Your task to perform on an android device: Show the shopping cart on newegg.com. Search for "jbl flip 4" on newegg.com, select the first entry, add it to the cart, then select checkout. Image 0: 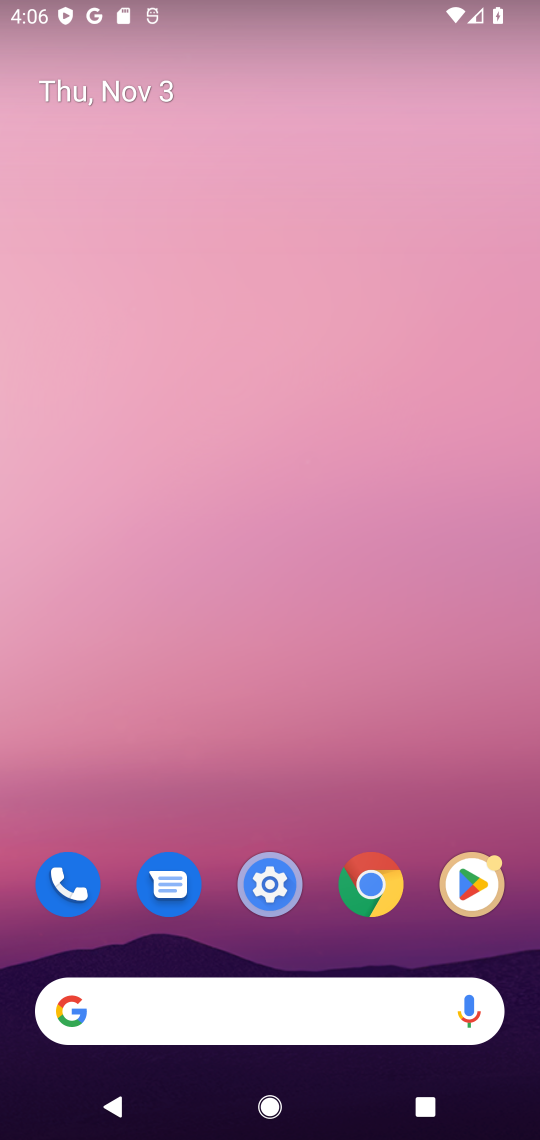
Step 0: press home button
Your task to perform on an android device: Show the shopping cart on newegg.com. Search for "jbl flip 4" on newegg.com, select the first entry, add it to the cart, then select checkout. Image 1: 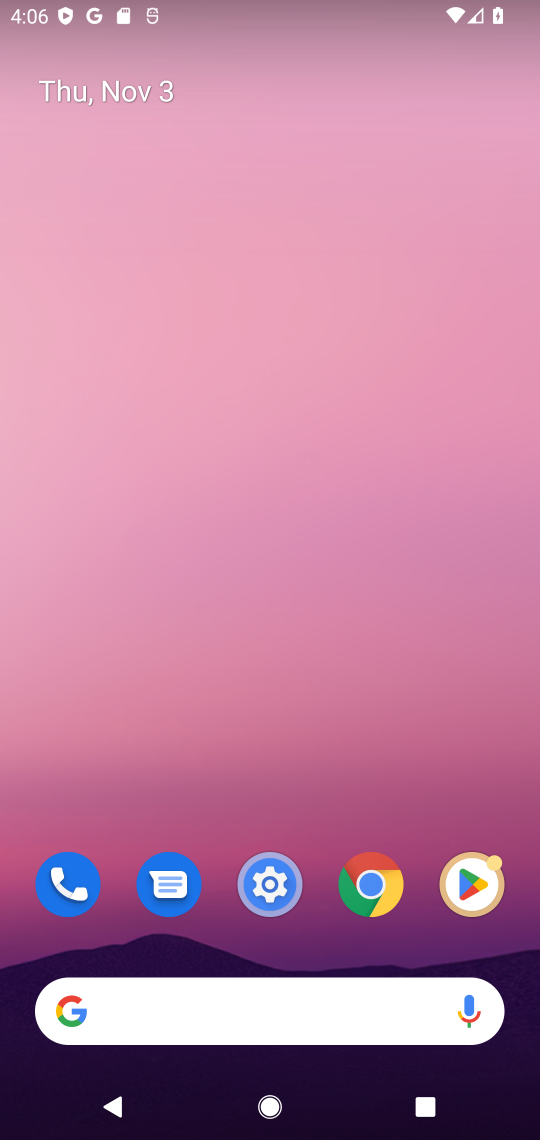
Step 1: press home button
Your task to perform on an android device: Show the shopping cart on newegg.com. Search for "jbl flip 4" on newegg.com, select the first entry, add it to the cart, then select checkout. Image 2: 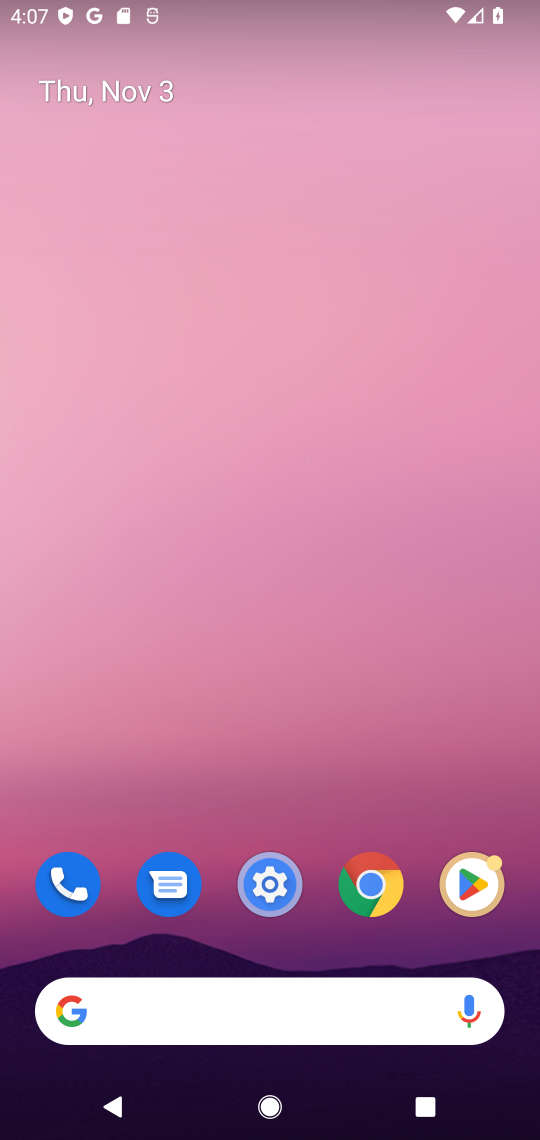
Step 2: click (123, 1006)
Your task to perform on an android device: Show the shopping cart on newegg.com. Search for "jbl flip 4" on newegg.com, select the first entry, add it to the cart, then select checkout. Image 3: 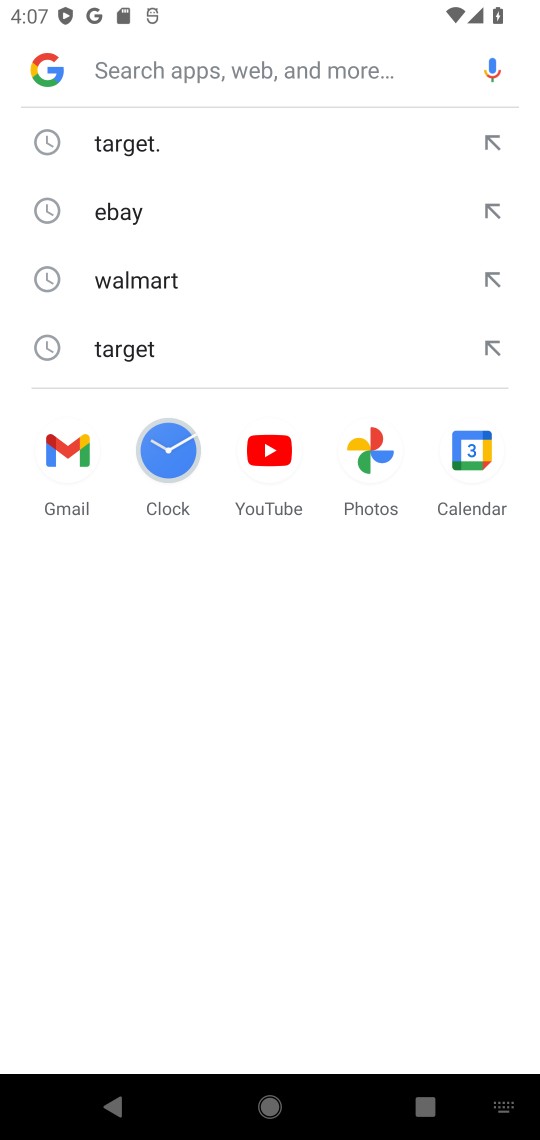
Step 3: type "newegg.com"
Your task to perform on an android device: Show the shopping cart on newegg.com. Search for "jbl flip 4" on newegg.com, select the first entry, add it to the cart, then select checkout. Image 4: 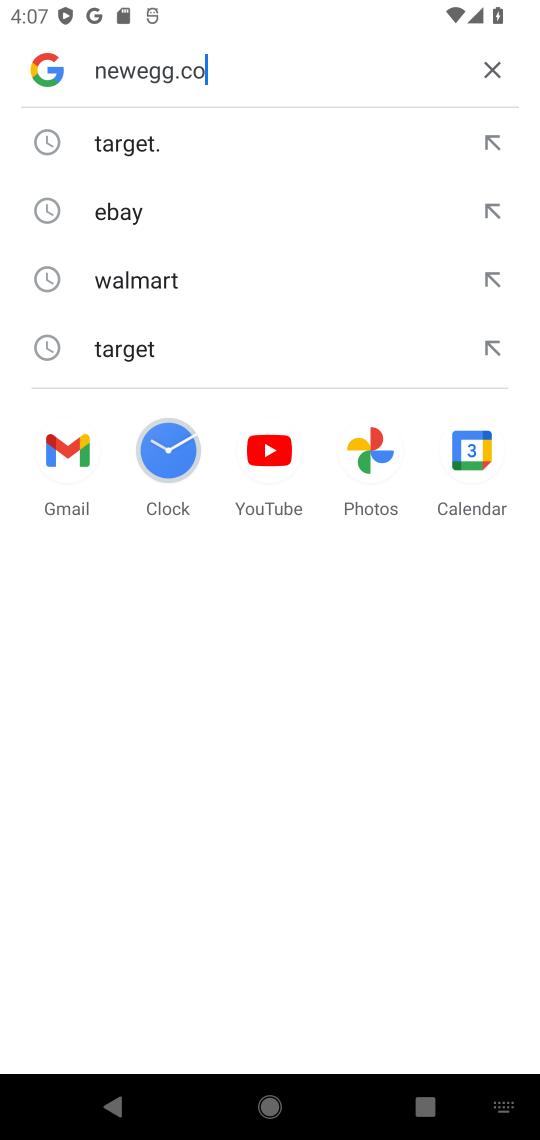
Step 4: press enter
Your task to perform on an android device: Show the shopping cart on newegg.com. Search for "jbl flip 4" on newegg.com, select the first entry, add it to the cart, then select checkout. Image 5: 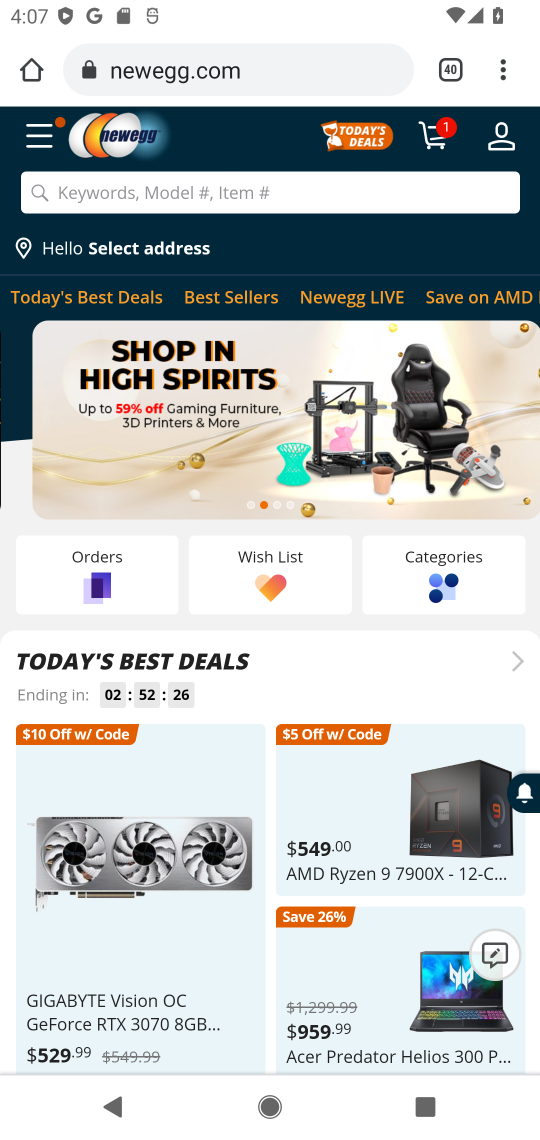
Step 5: click (440, 127)
Your task to perform on an android device: Show the shopping cart on newegg.com. Search for "jbl flip 4" on newegg.com, select the first entry, add it to the cart, then select checkout. Image 6: 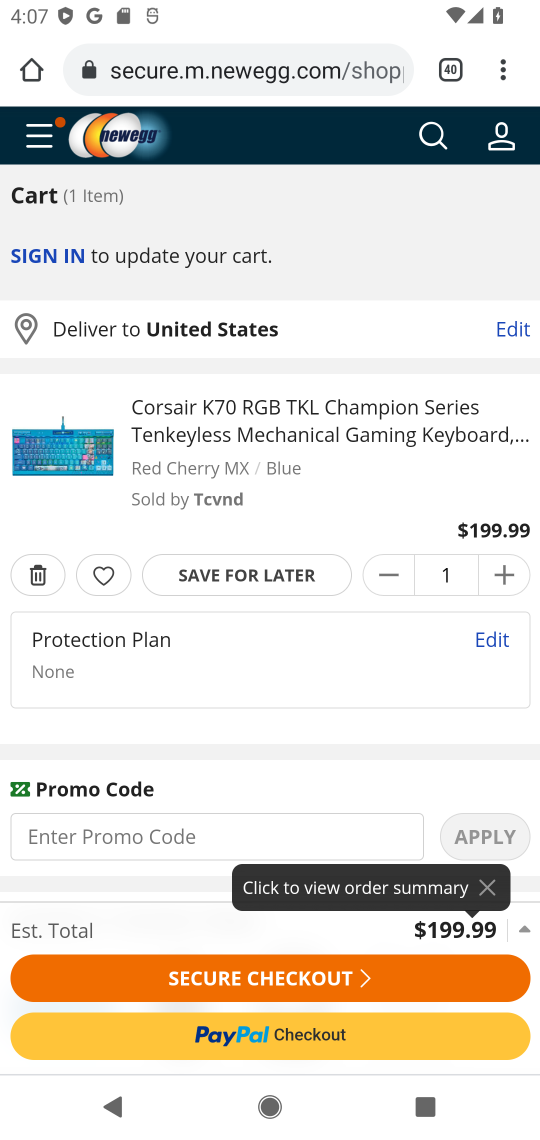
Step 6: click (434, 140)
Your task to perform on an android device: Show the shopping cart on newegg.com. Search for "jbl flip 4" on newegg.com, select the first entry, add it to the cart, then select checkout. Image 7: 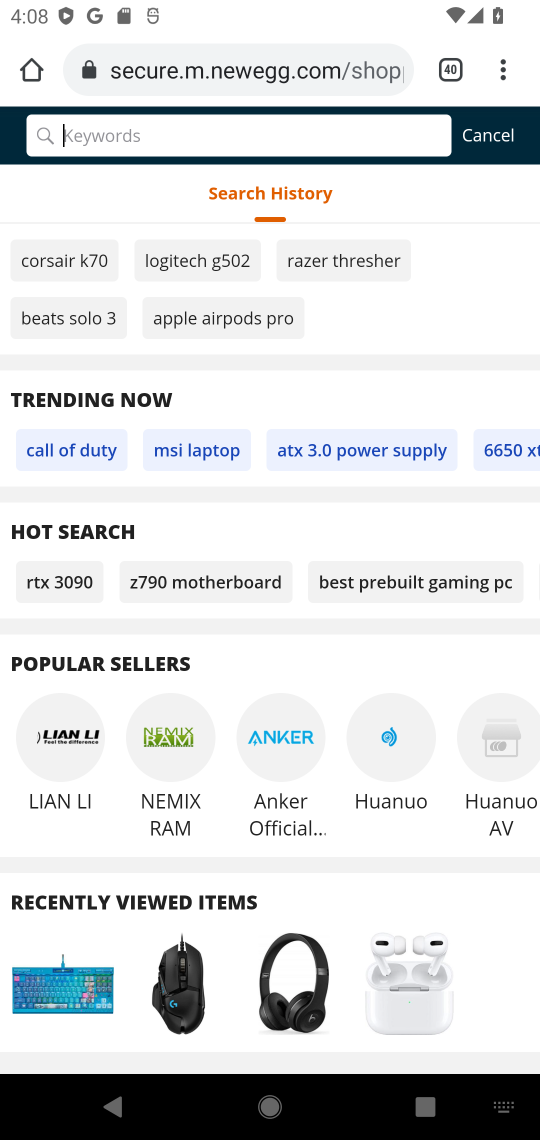
Step 7: type "jbl flip 4"
Your task to perform on an android device: Show the shopping cart on newegg.com. Search for "jbl flip 4" on newegg.com, select the first entry, add it to the cart, then select checkout. Image 8: 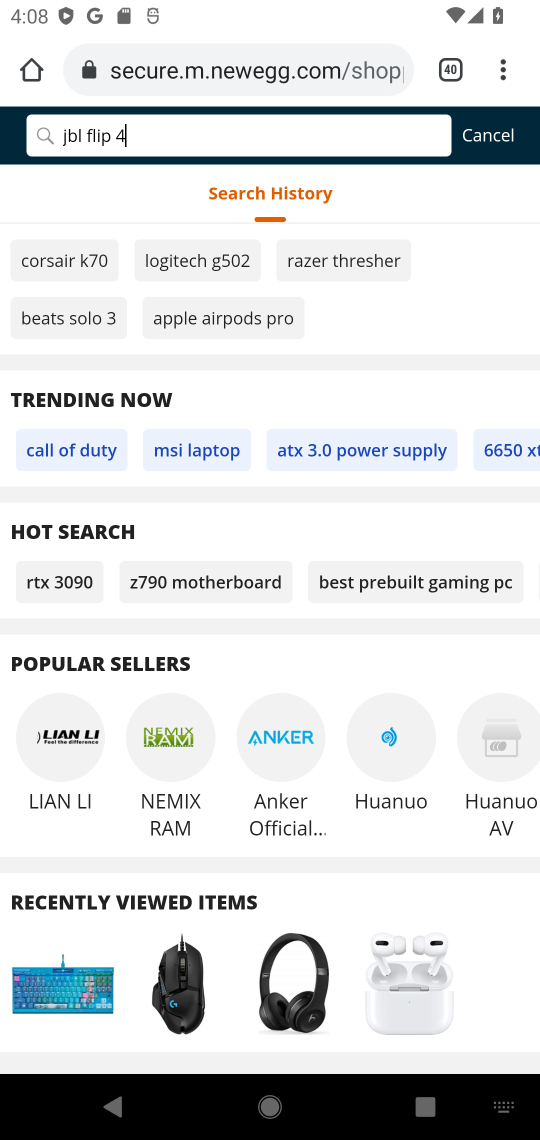
Step 8: press enter
Your task to perform on an android device: Show the shopping cart on newegg.com. Search for "jbl flip 4" on newegg.com, select the first entry, add it to the cart, then select checkout. Image 9: 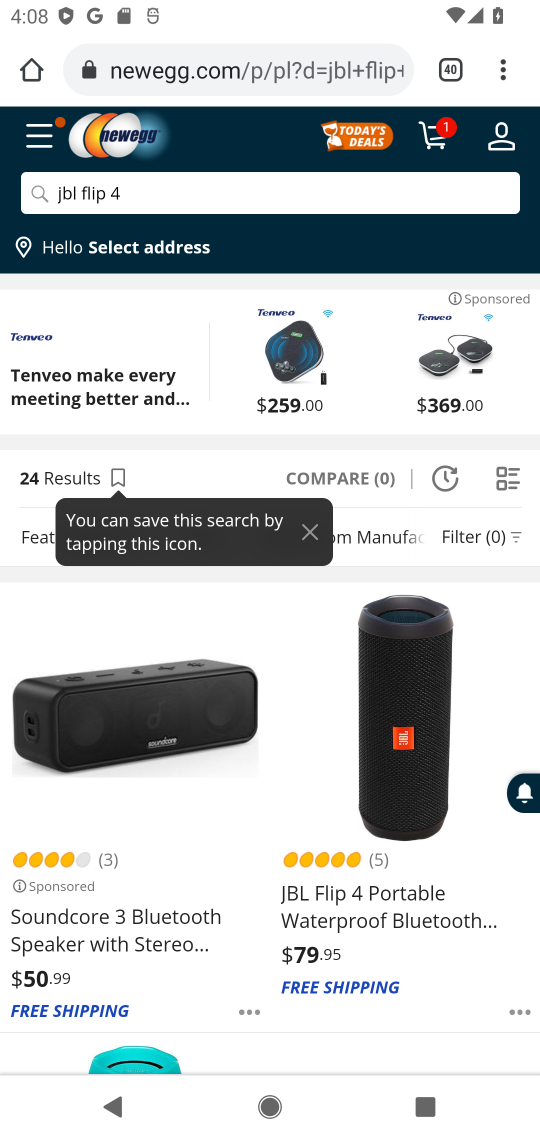
Step 9: click (366, 890)
Your task to perform on an android device: Show the shopping cart on newegg.com. Search for "jbl flip 4" on newegg.com, select the first entry, add it to the cart, then select checkout. Image 10: 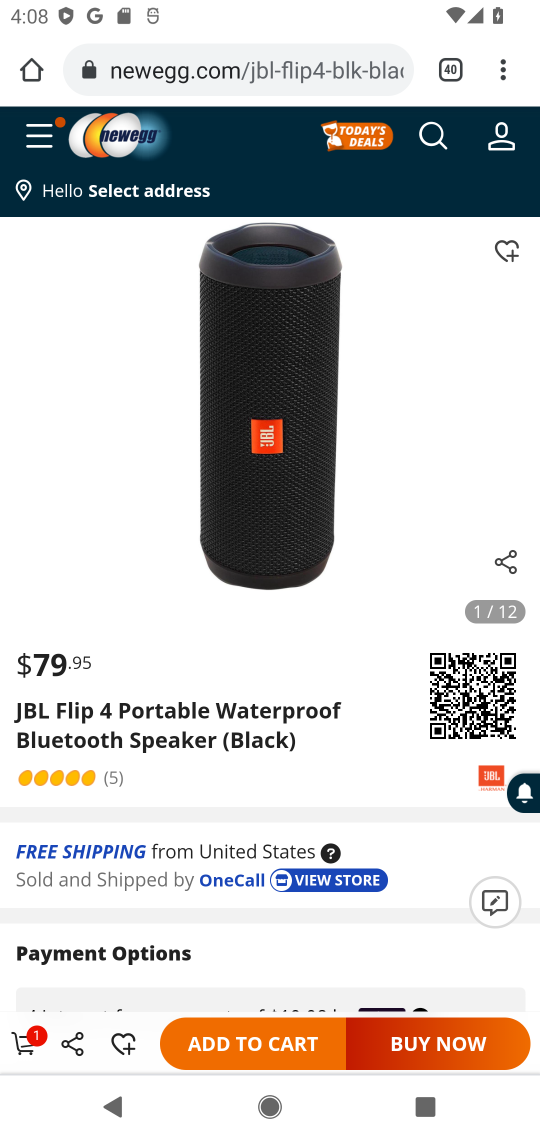
Step 10: click (235, 1045)
Your task to perform on an android device: Show the shopping cart on newegg.com. Search for "jbl flip 4" on newegg.com, select the first entry, add it to the cart, then select checkout. Image 11: 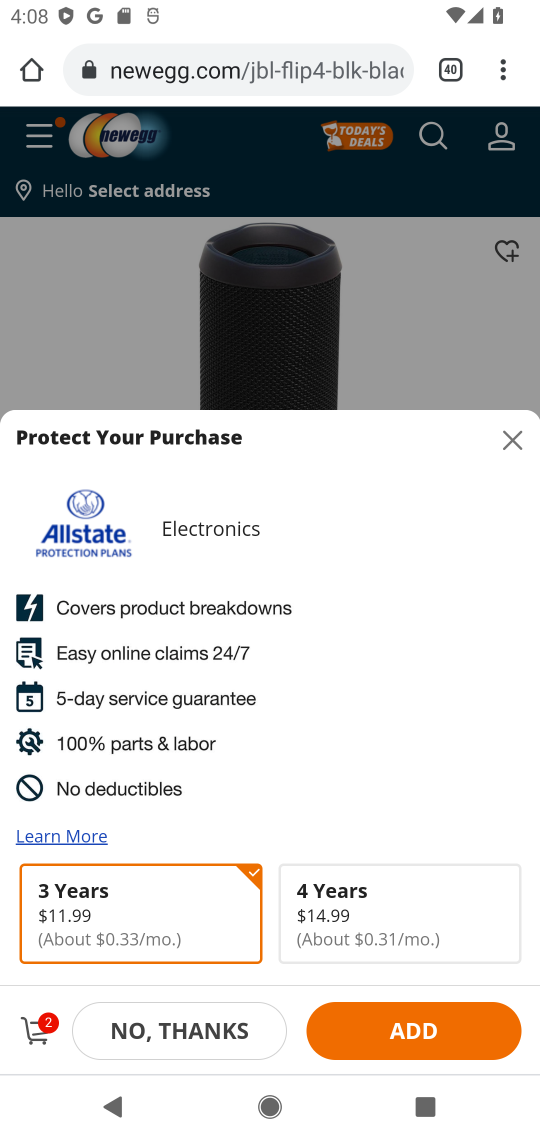
Step 11: click (175, 1024)
Your task to perform on an android device: Show the shopping cart on newegg.com. Search for "jbl flip 4" on newegg.com, select the first entry, add it to the cart, then select checkout. Image 12: 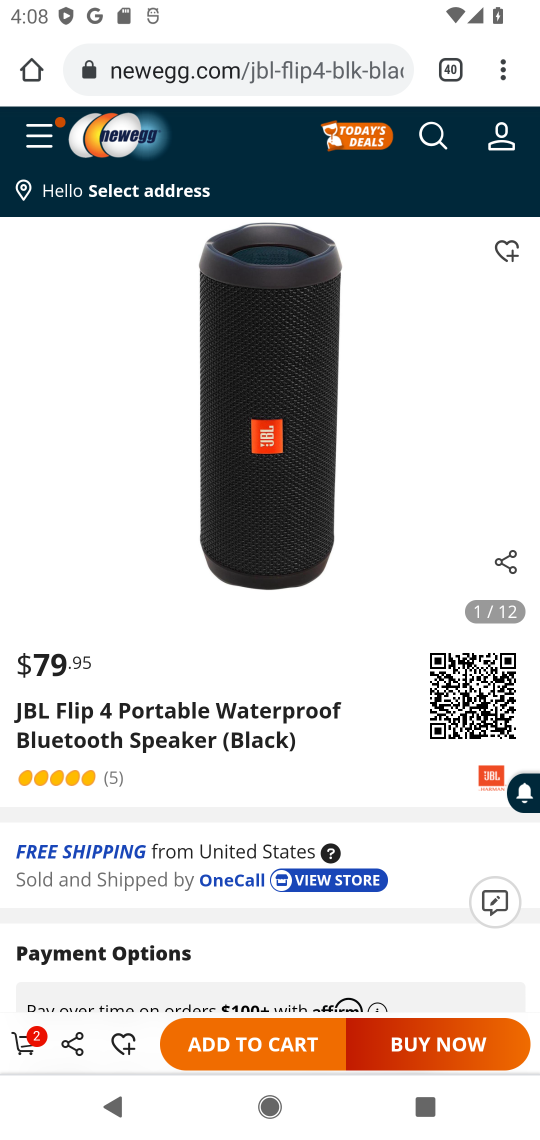
Step 12: click (15, 1041)
Your task to perform on an android device: Show the shopping cart on newegg.com. Search for "jbl flip 4" on newegg.com, select the first entry, add it to the cart, then select checkout. Image 13: 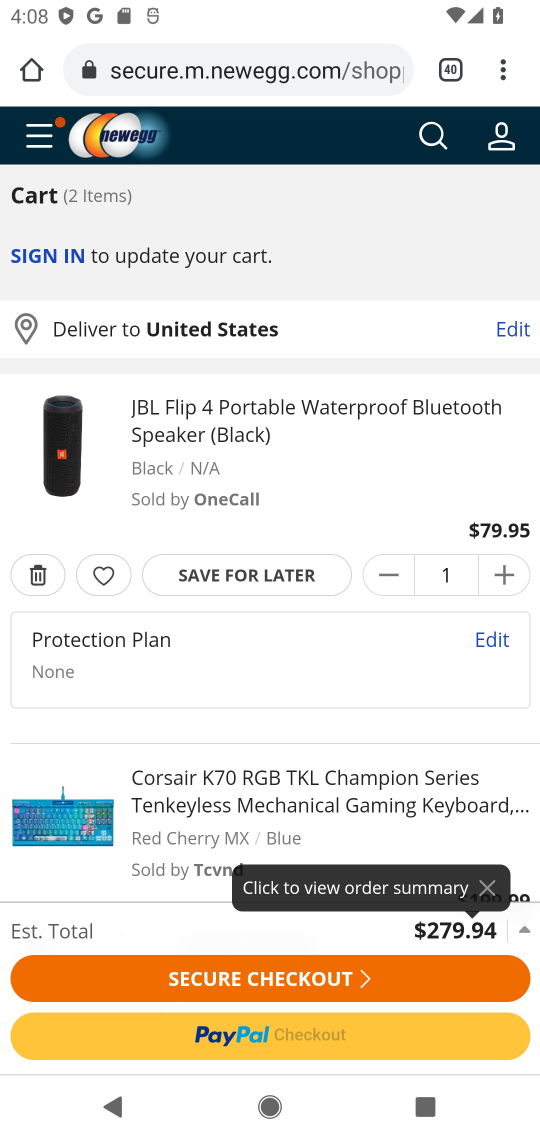
Step 13: click (283, 984)
Your task to perform on an android device: Show the shopping cart on newegg.com. Search for "jbl flip 4" on newegg.com, select the first entry, add it to the cart, then select checkout. Image 14: 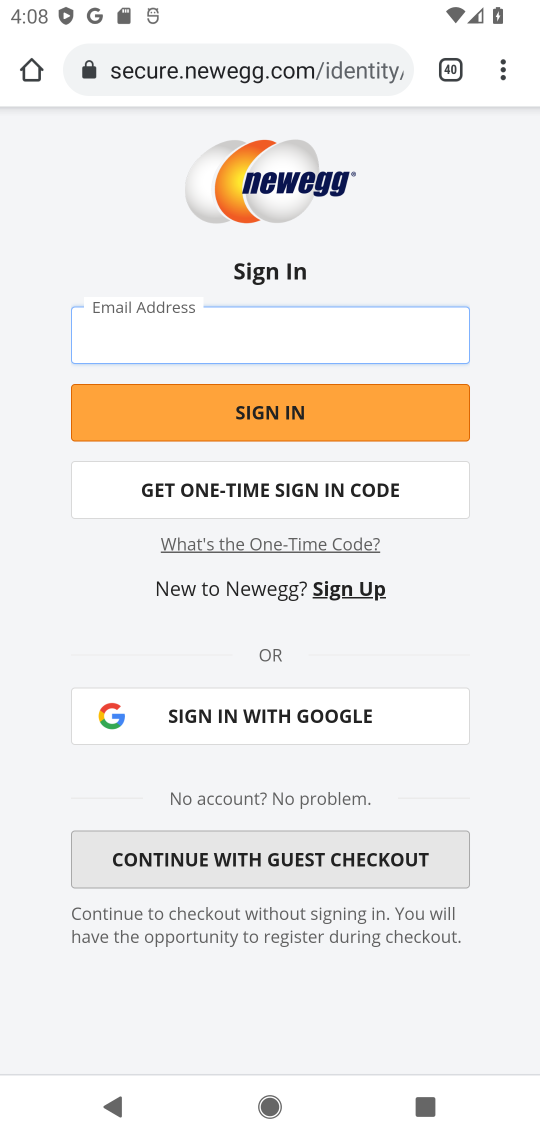
Step 14: task complete